Your task to perform on an android device: turn off airplane mode Image 0: 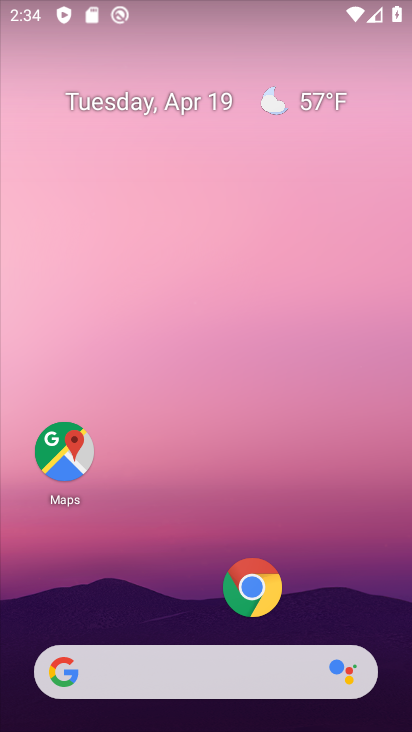
Step 0: drag from (183, 568) to (278, 51)
Your task to perform on an android device: turn off airplane mode Image 1: 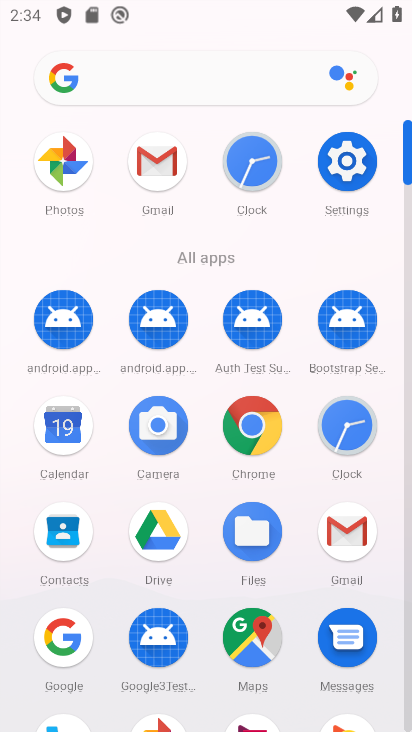
Step 1: click (347, 164)
Your task to perform on an android device: turn off airplane mode Image 2: 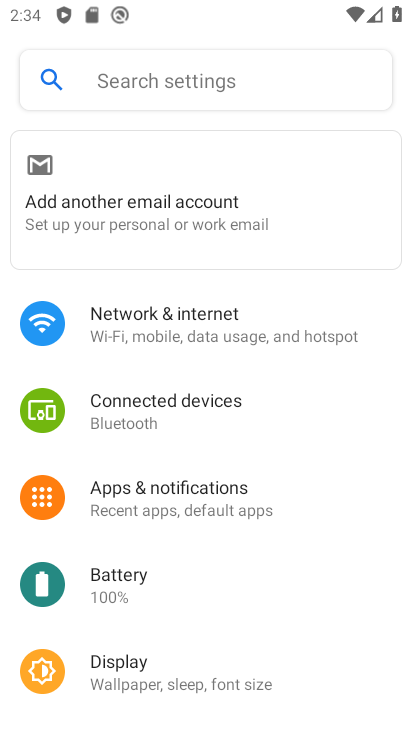
Step 2: click (188, 337)
Your task to perform on an android device: turn off airplane mode Image 3: 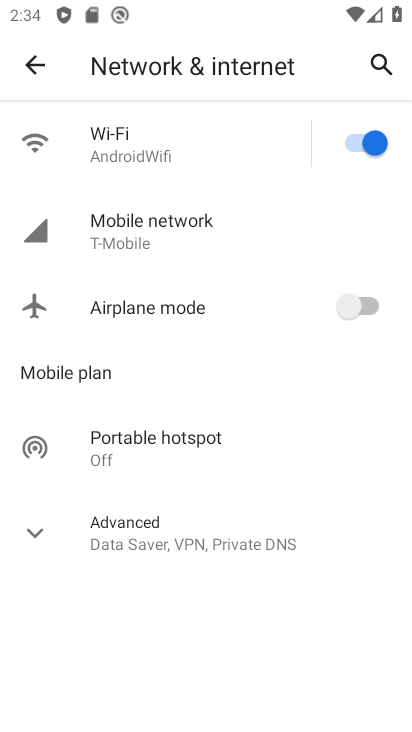
Step 3: task complete